Your task to perform on an android device: change your default location settings in chrome Image 0: 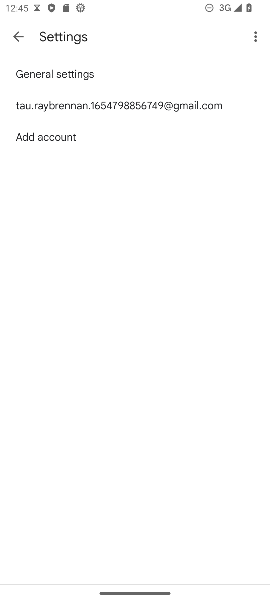
Step 0: press back button
Your task to perform on an android device: change your default location settings in chrome Image 1: 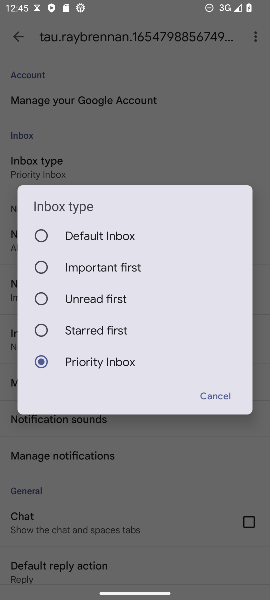
Step 1: press home button
Your task to perform on an android device: change your default location settings in chrome Image 2: 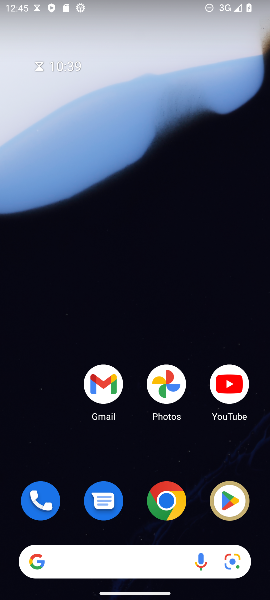
Step 2: click (161, 504)
Your task to perform on an android device: change your default location settings in chrome Image 3: 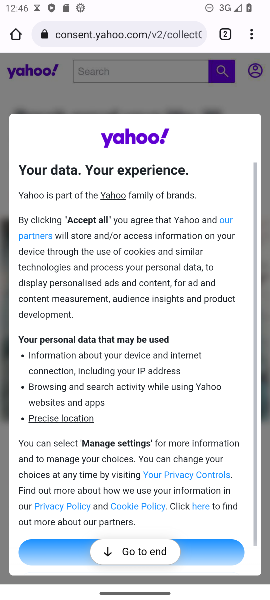
Step 3: click (252, 34)
Your task to perform on an android device: change your default location settings in chrome Image 4: 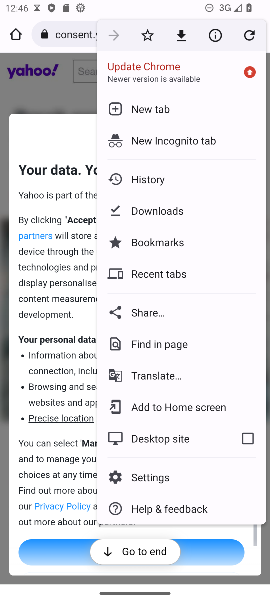
Step 4: click (153, 484)
Your task to perform on an android device: change your default location settings in chrome Image 5: 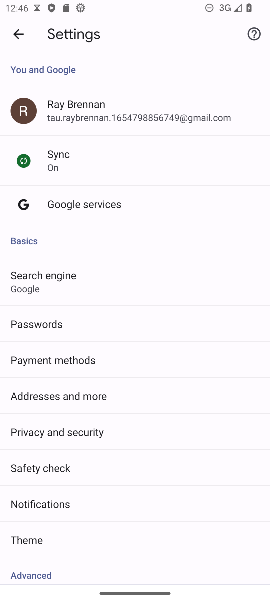
Step 5: click (95, 127)
Your task to perform on an android device: change your default location settings in chrome Image 6: 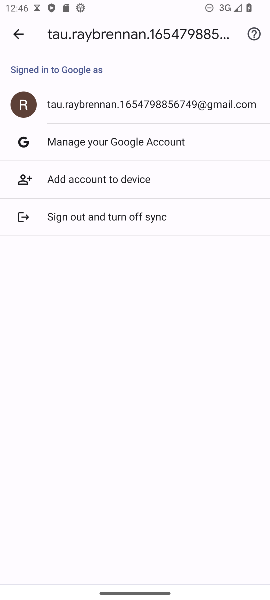
Step 6: click (19, 34)
Your task to perform on an android device: change your default location settings in chrome Image 7: 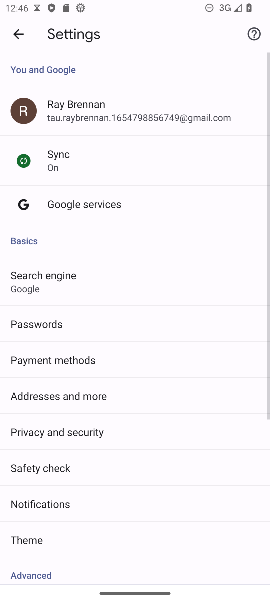
Step 7: drag from (74, 533) to (107, 283)
Your task to perform on an android device: change your default location settings in chrome Image 8: 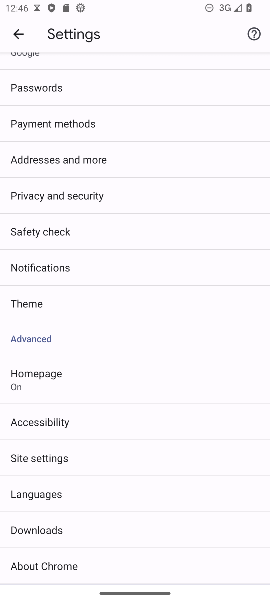
Step 8: drag from (53, 535) to (136, 159)
Your task to perform on an android device: change your default location settings in chrome Image 9: 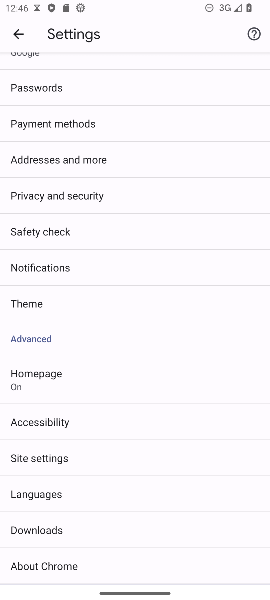
Step 9: click (54, 459)
Your task to perform on an android device: change your default location settings in chrome Image 10: 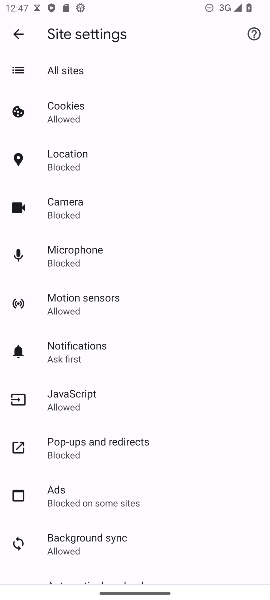
Step 10: click (67, 161)
Your task to perform on an android device: change your default location settings in chrome Image 11: 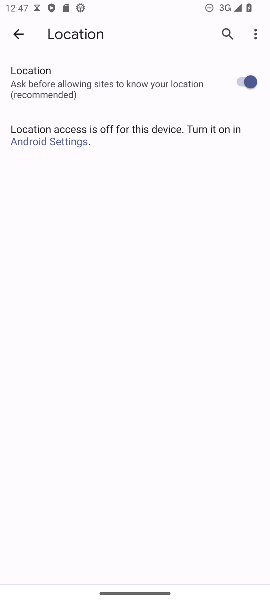
Step 11: click (244, 85)
Your task to perform on an android device: change your default location settings in chrome Image 12: 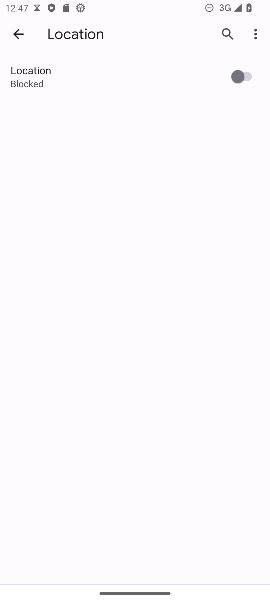
Step 12: task complete